Your task to perform on an android device: check google app version Image 0: 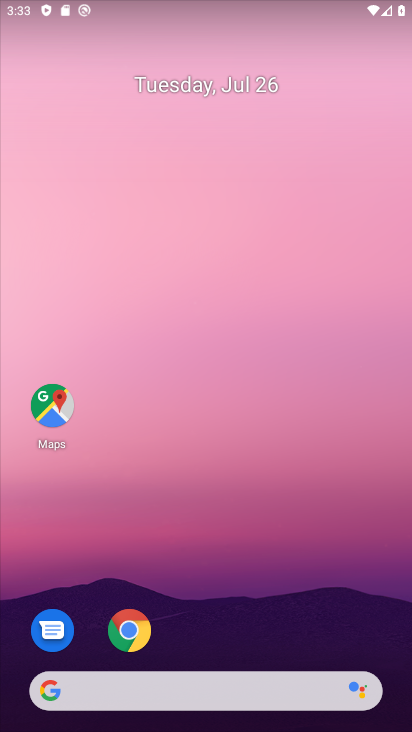
Step 0: drag from (249, 605) to (248, 193)
Your task to perform on an android device: check google app version Image 1: 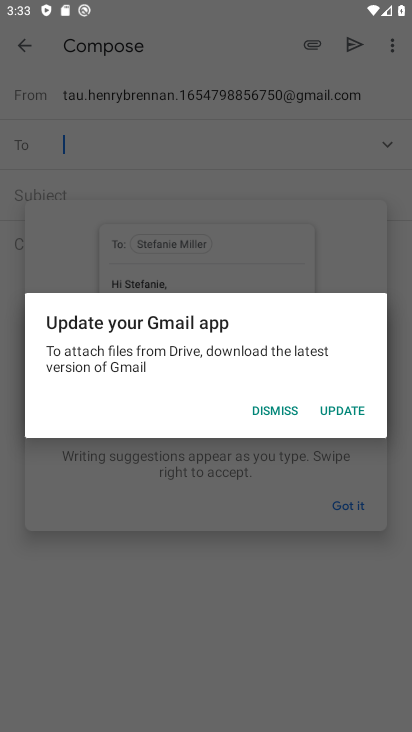
Step 1: click (279, 413)
Your task to perform on an android device: check google app version Image 2: 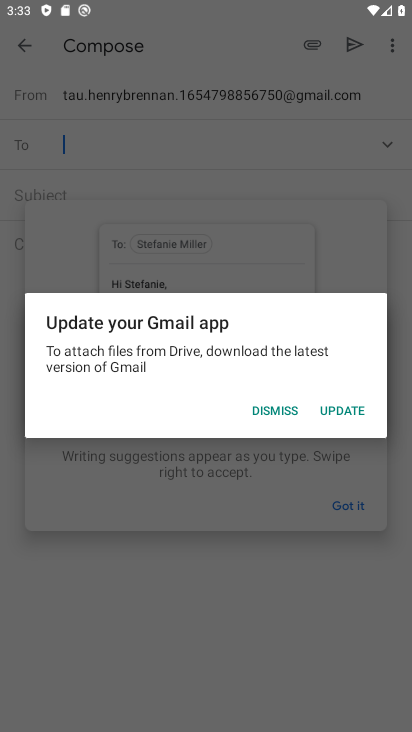
Step 2: click (280, 412)
Your task to perform on an android device: check google app version Image 3: 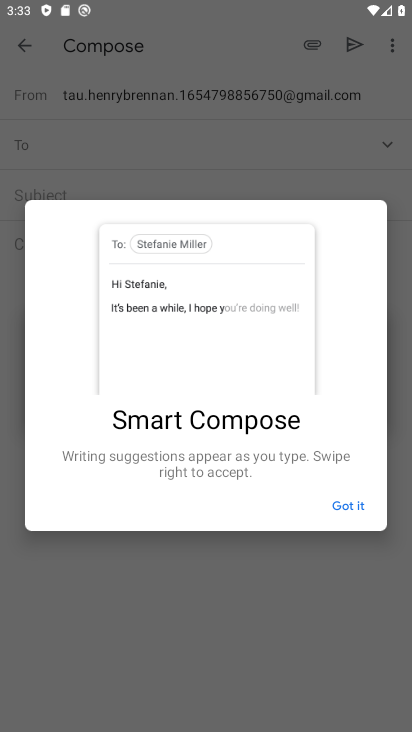
Step 3: click (355, 497)
Your task to perform on an android device: check google app version Image 4: 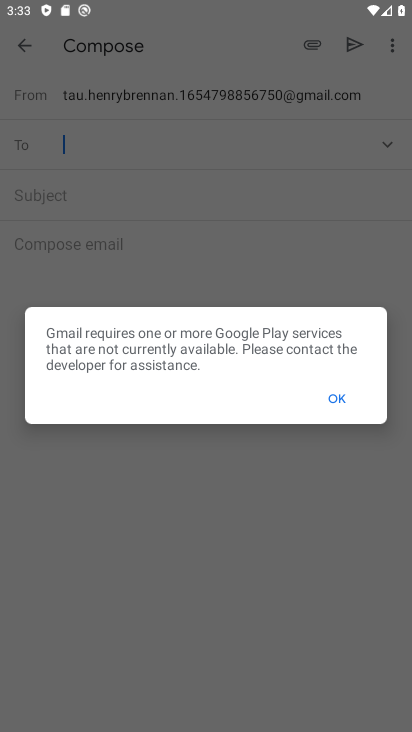
Step 4: click (344, 405)
Your task to perform on an android device: check google app version Image 5: 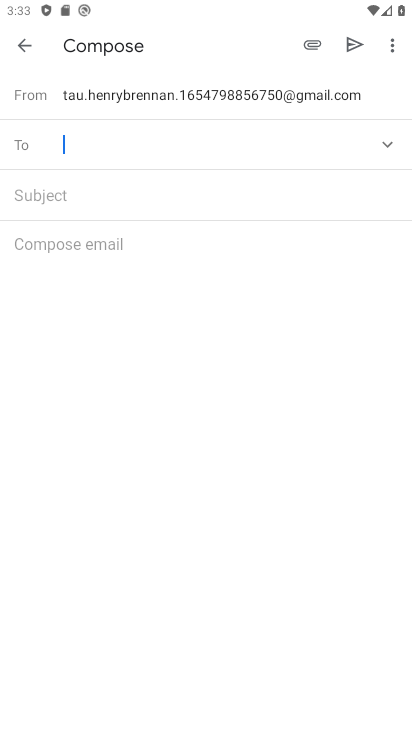
Step 5: click (31, 43)
Your task to perform on an android device: check google app version Image 6: 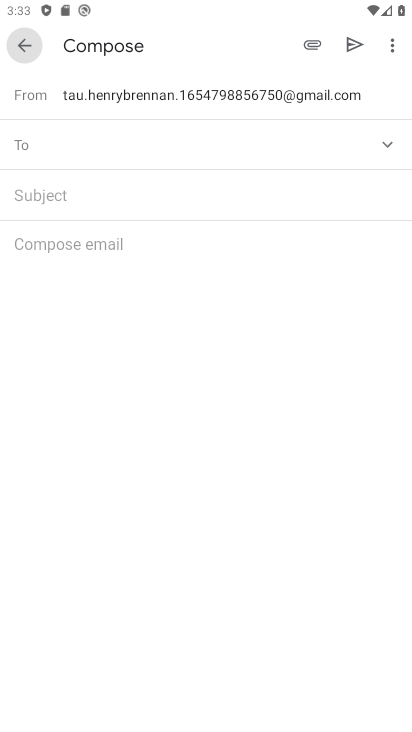
Step 6: click (31, 42)
Your task to perform on an android device: check google app version Image 7: 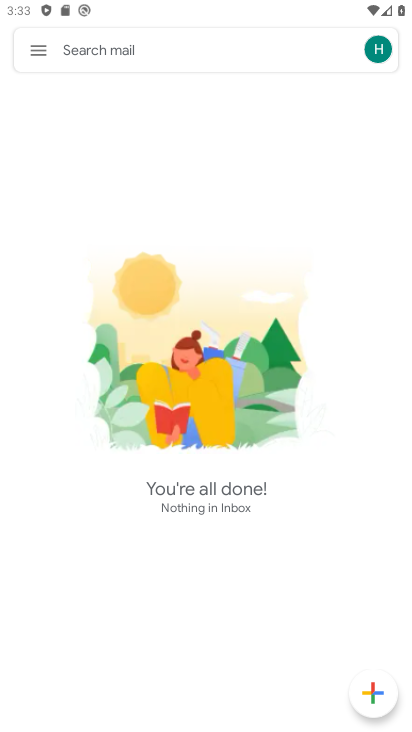
Step 7: press back button
Your task to perform on an android device: check google app version Image 8: 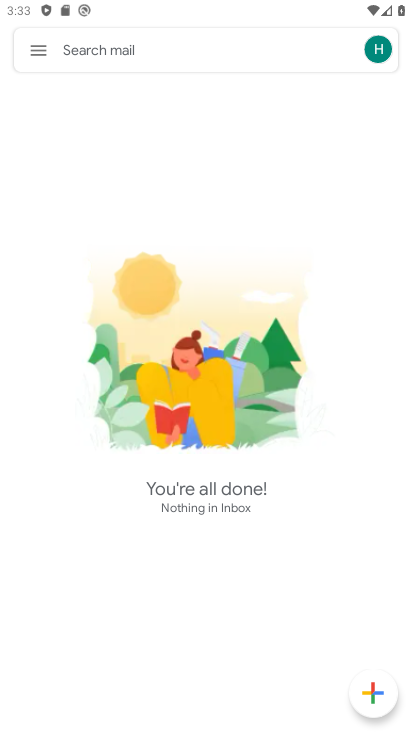
Step 8: press back button
Your task to perform on an android device: check google app version Image 9: 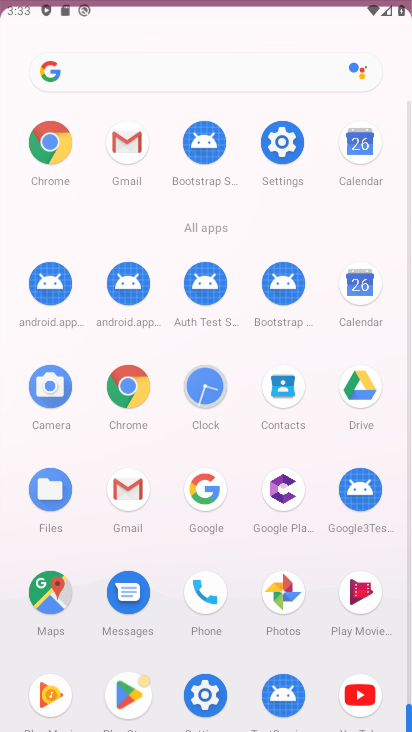
Step 9: press back button
Your task to perform on an android device: check google app version Image 10: 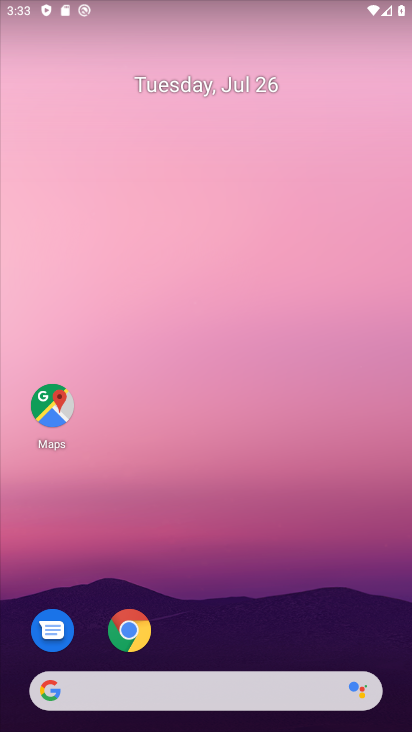
Step 10: drag from (243, 550) to (155, 97)
Your task to perform on an android device: check google app version Image 11: 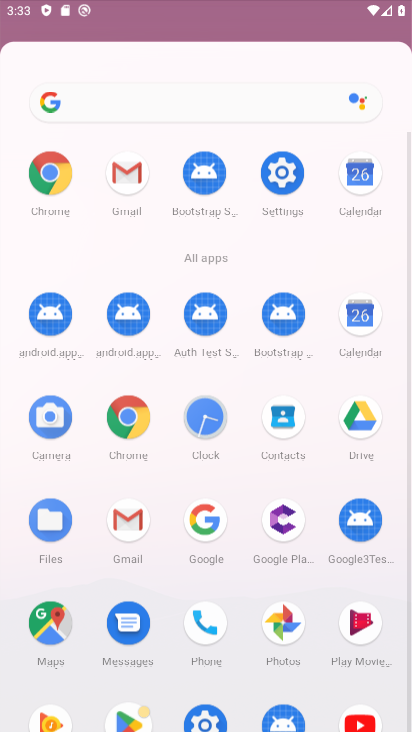
Step 11: drag from (214, 648) to (194, 130)
Your task to perform on an android device: check google app version Image 12: 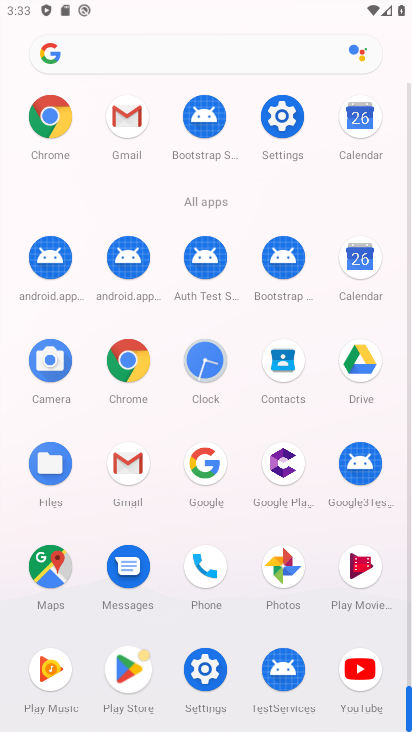
Step 12: click (205, 469)
Your task to perform on an android device: check google app version Image 13: 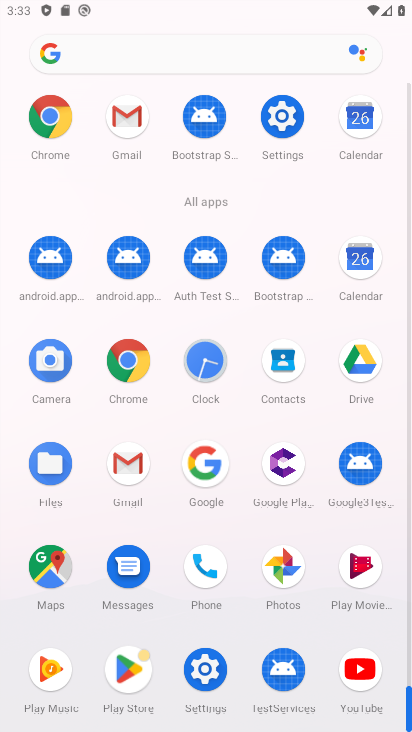
Step 13: click (205, 469)
Your task to perform on an android device: check google app version Image 14: 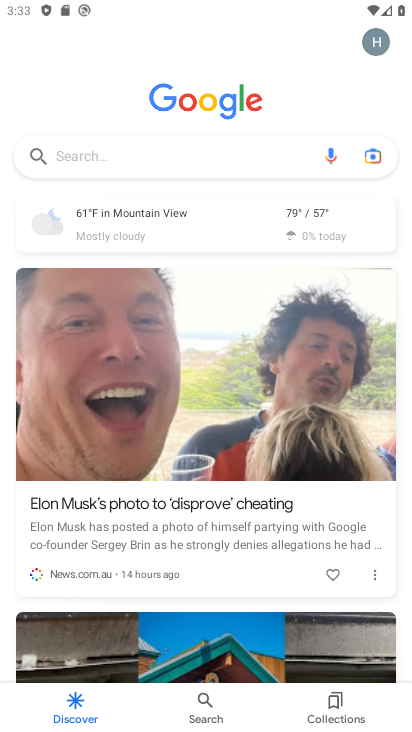
Step 14: click (368, 57)
Your task to perform on an android device: check google app version Image 15: 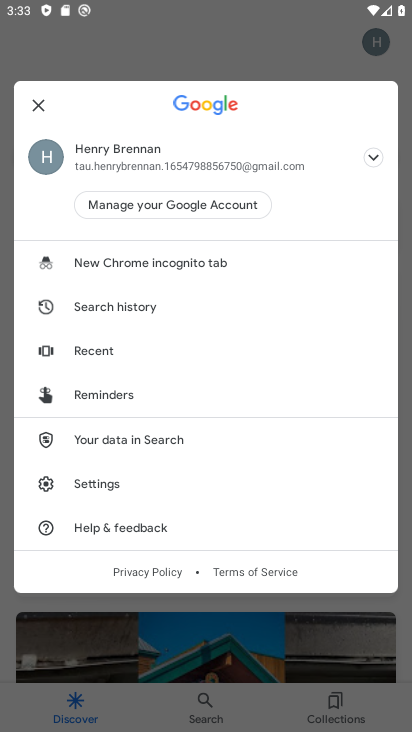
Step 15: click (88, 486)
Your task to perform on an android device: check google app version Image 16: 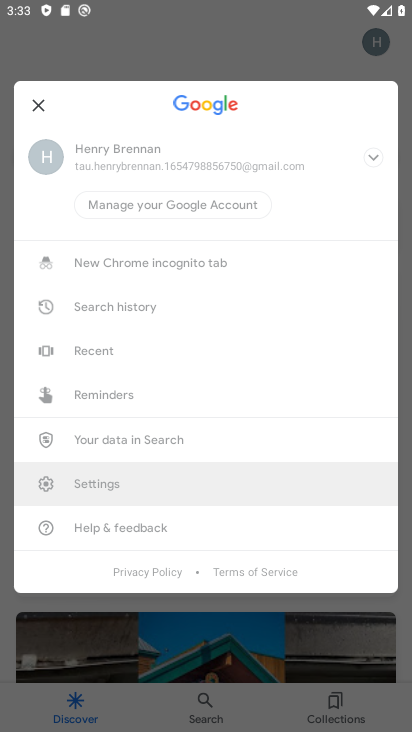
Step 16: click (89, 486)
Your task to perform on an android device: check google app version Image 17: 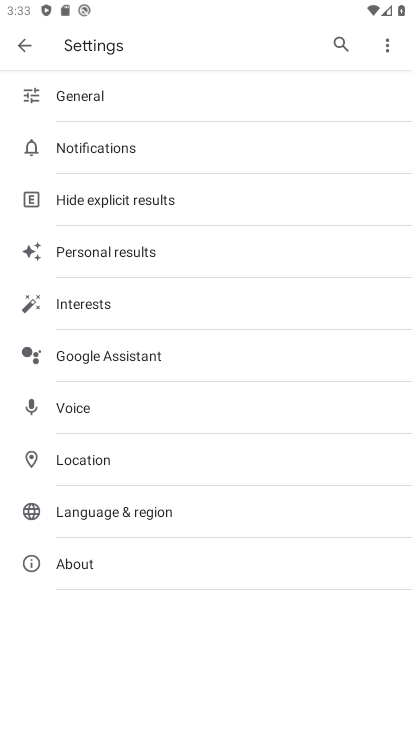
Step 17: click (91, 550)
Your task to perform on an android device: check google app version Image 18: 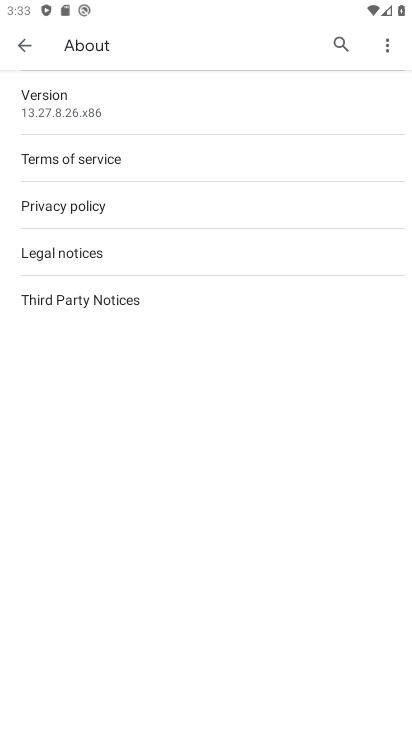
Step 18: click (58, 91)
Your task to perform on an android device: check google app version Image 19: 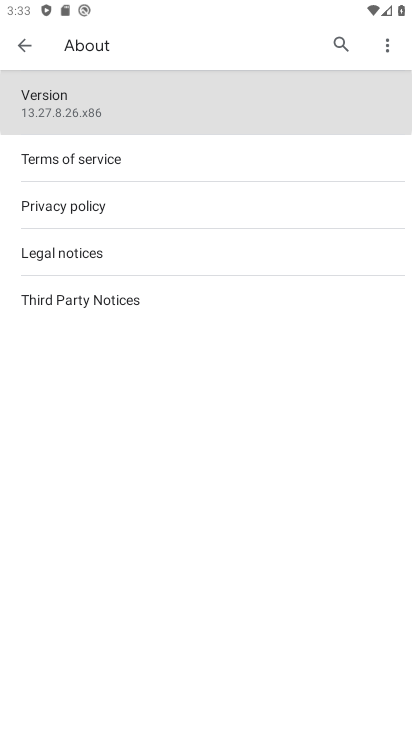
Step 19: click (64, 93)
Your task to perform on an android device: check google app version Image 20: 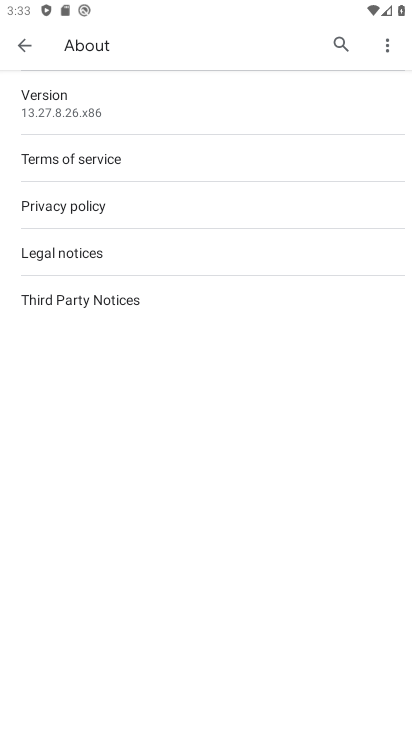
Step 20: click (66, 94)
Your task to perform on an android device: check google app version Image 21: 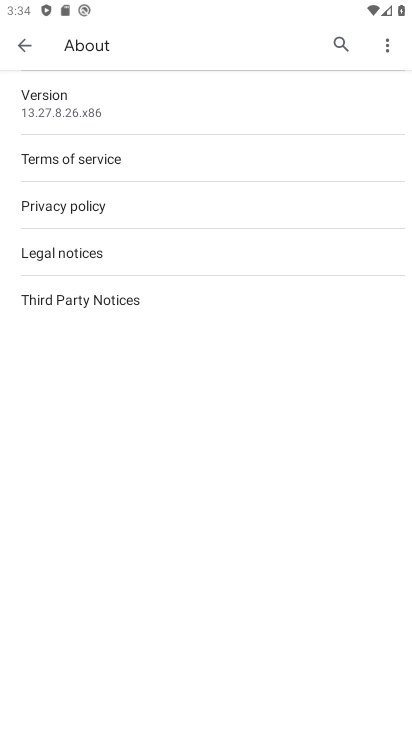
Step 21: task complete